Your task to perform on an android device: Turn off the flashlight Image 0: 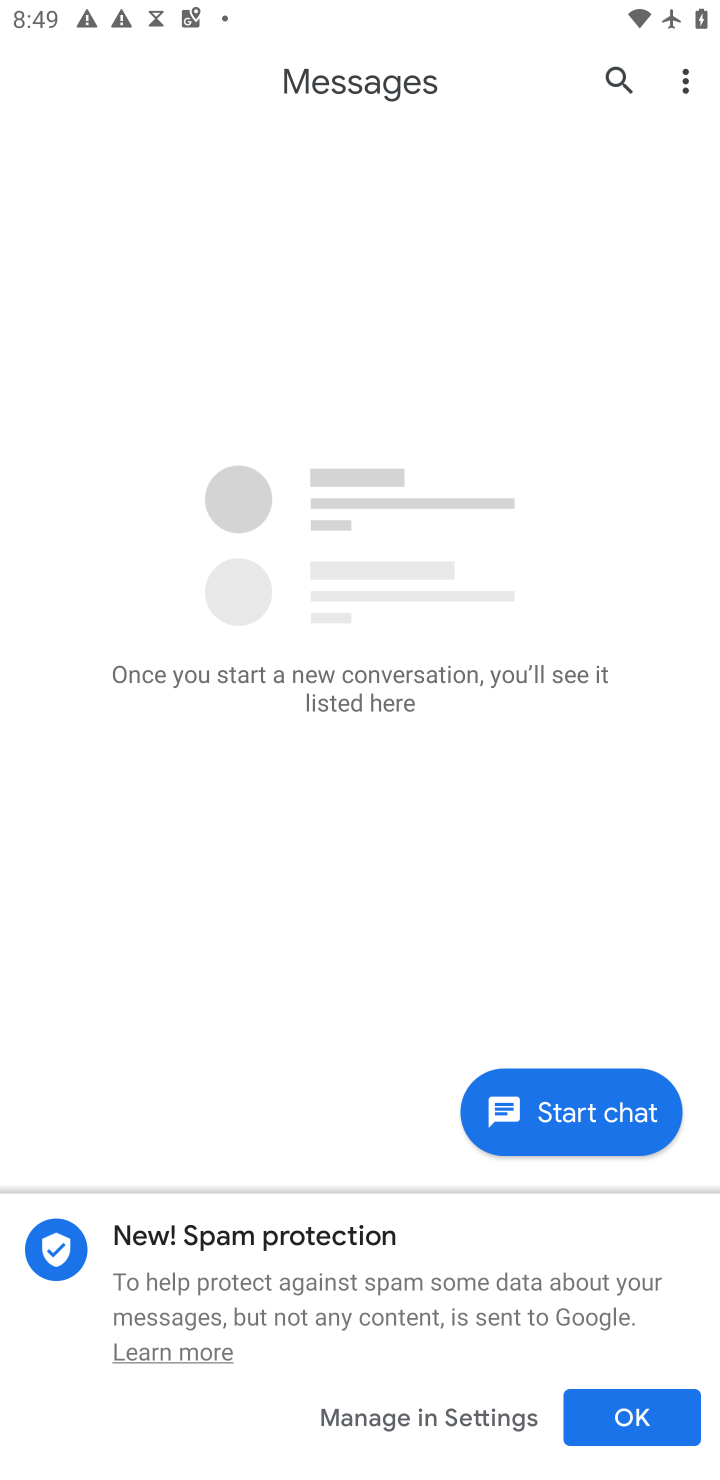
Step 0: press home button
Your task to perform on an android device: Turn off the flashlight Image 1: 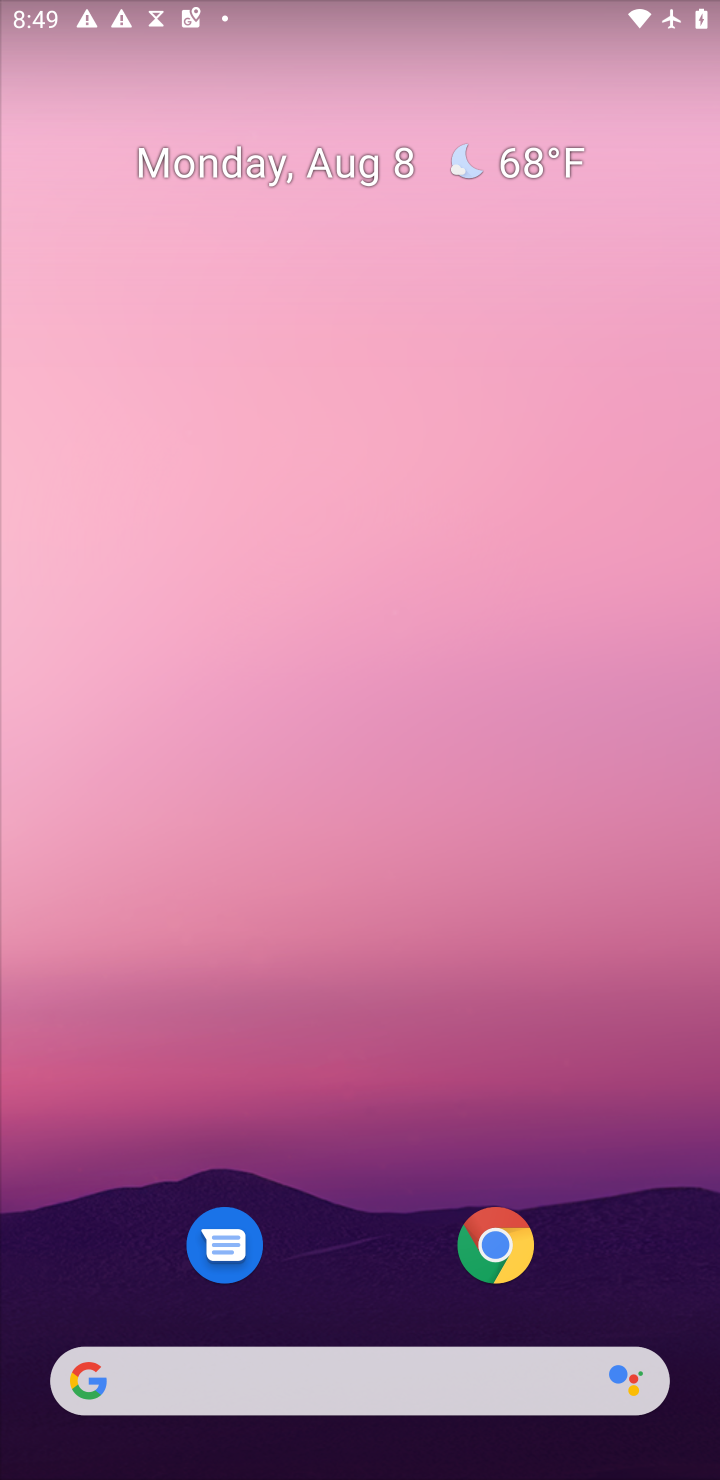
Step 1: drag from (373, 1274) to (631, 0)
Your task to perform on an android device: Turn off the flashlight Image 2: 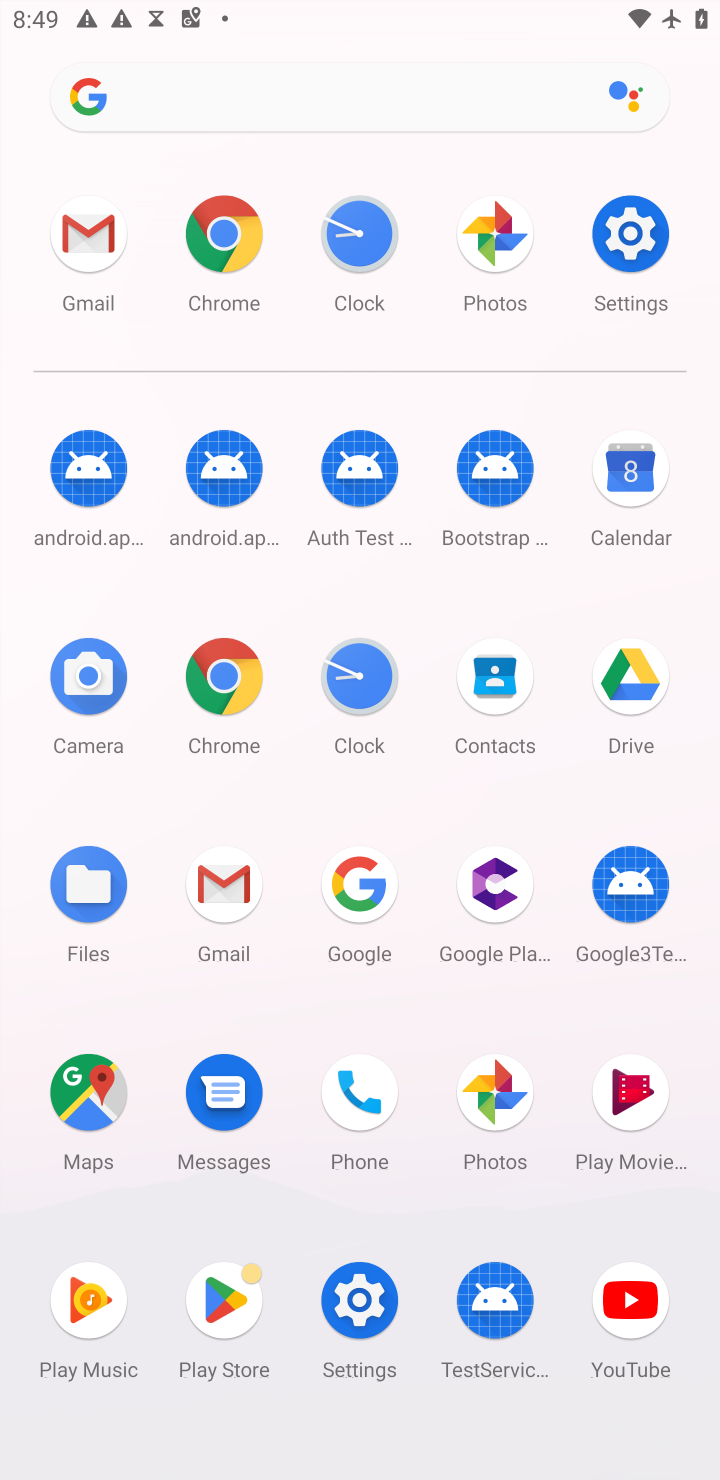
Step 2: click (639, 284)
Your task to perform on an android device: Turn off the flashlight Image 3: 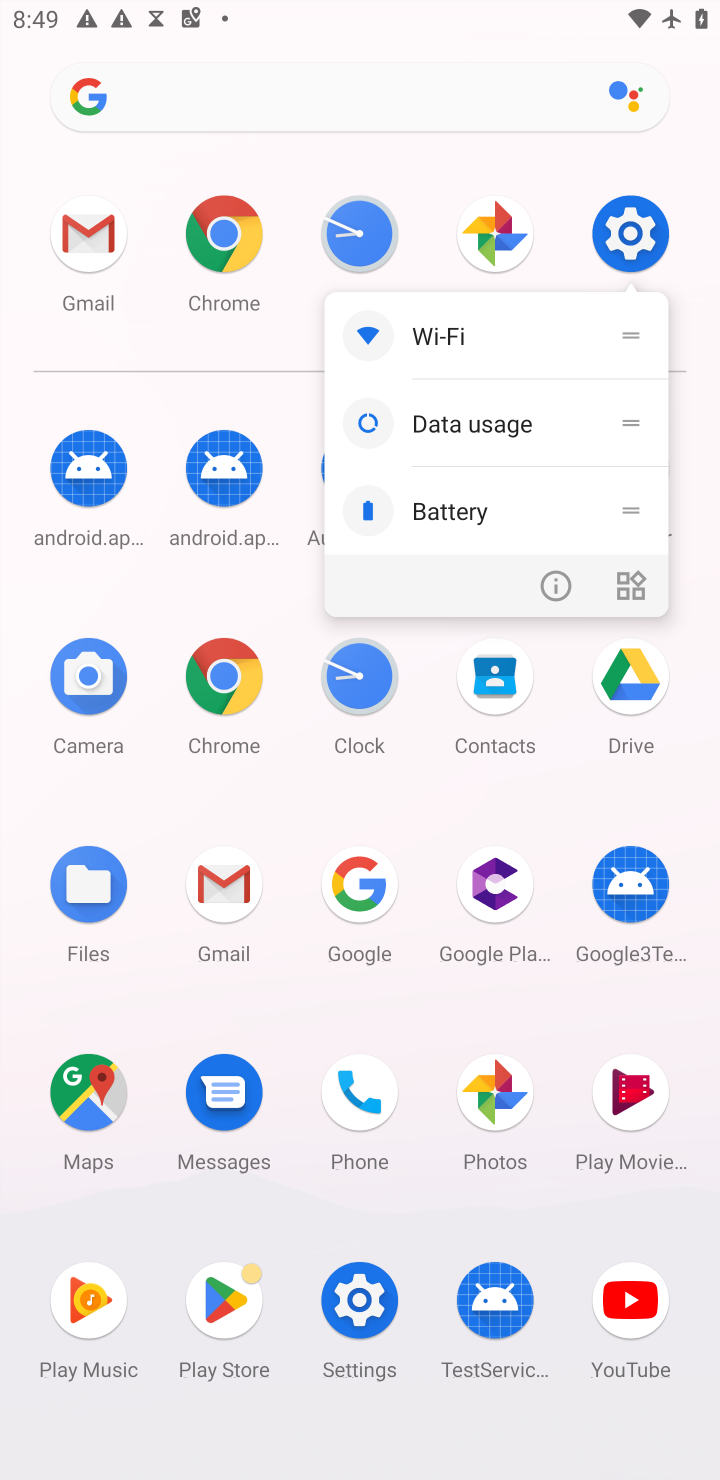
Step 3: click (643, 241)
Your task to perform on an android device: Turn off the flashlight Image 4: 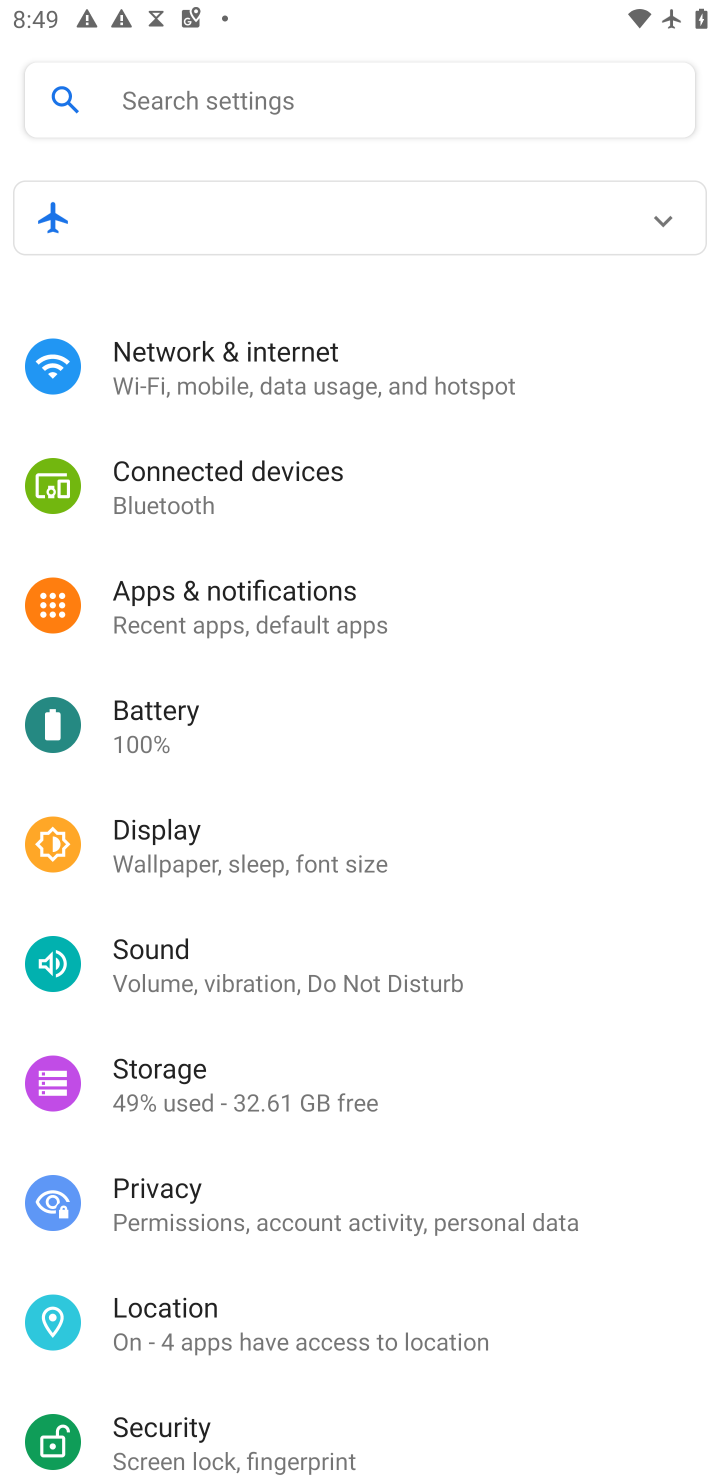
Step 4: click (362, 93)
Your task to perform on an android device: Turn off the flashlight Image 5: 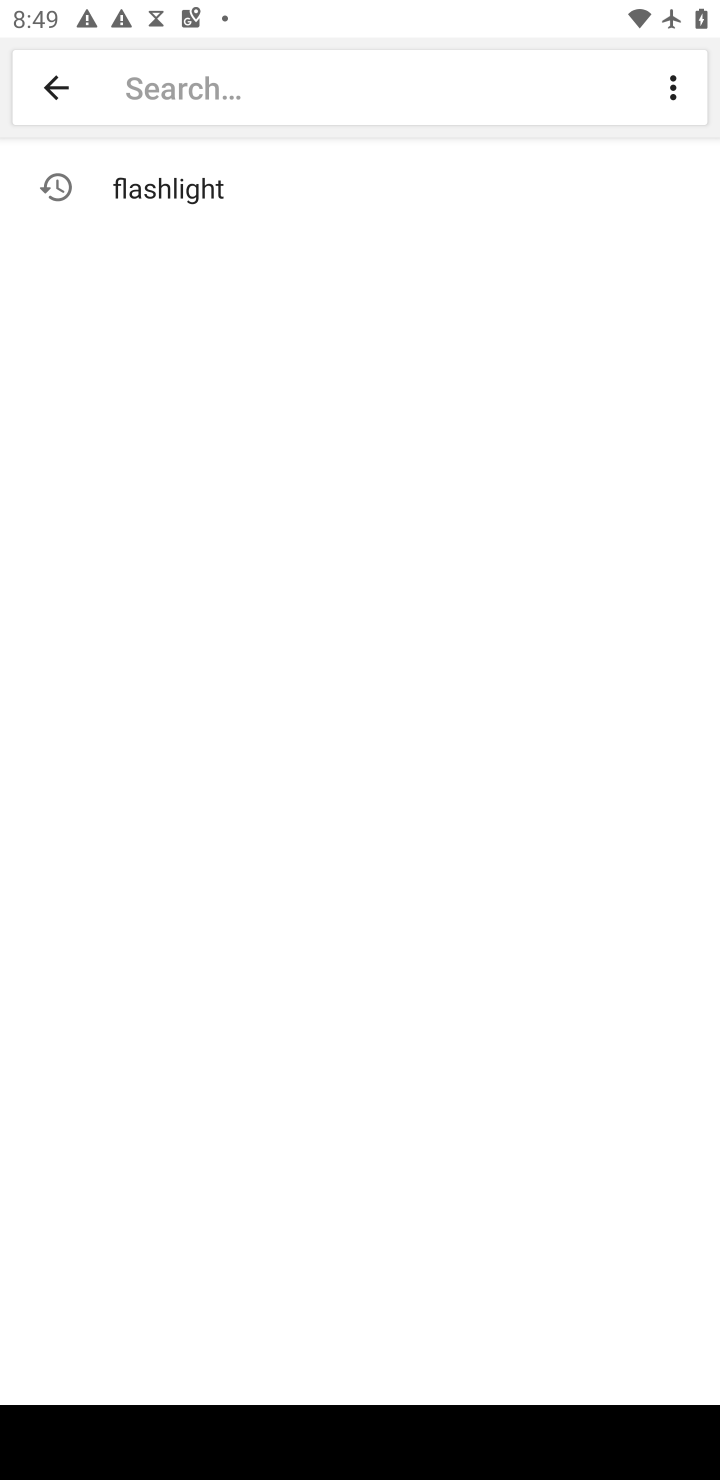
Step 5: type "flashlight"
Your task to perform on an android device: Turn off the flashlight Image 6: 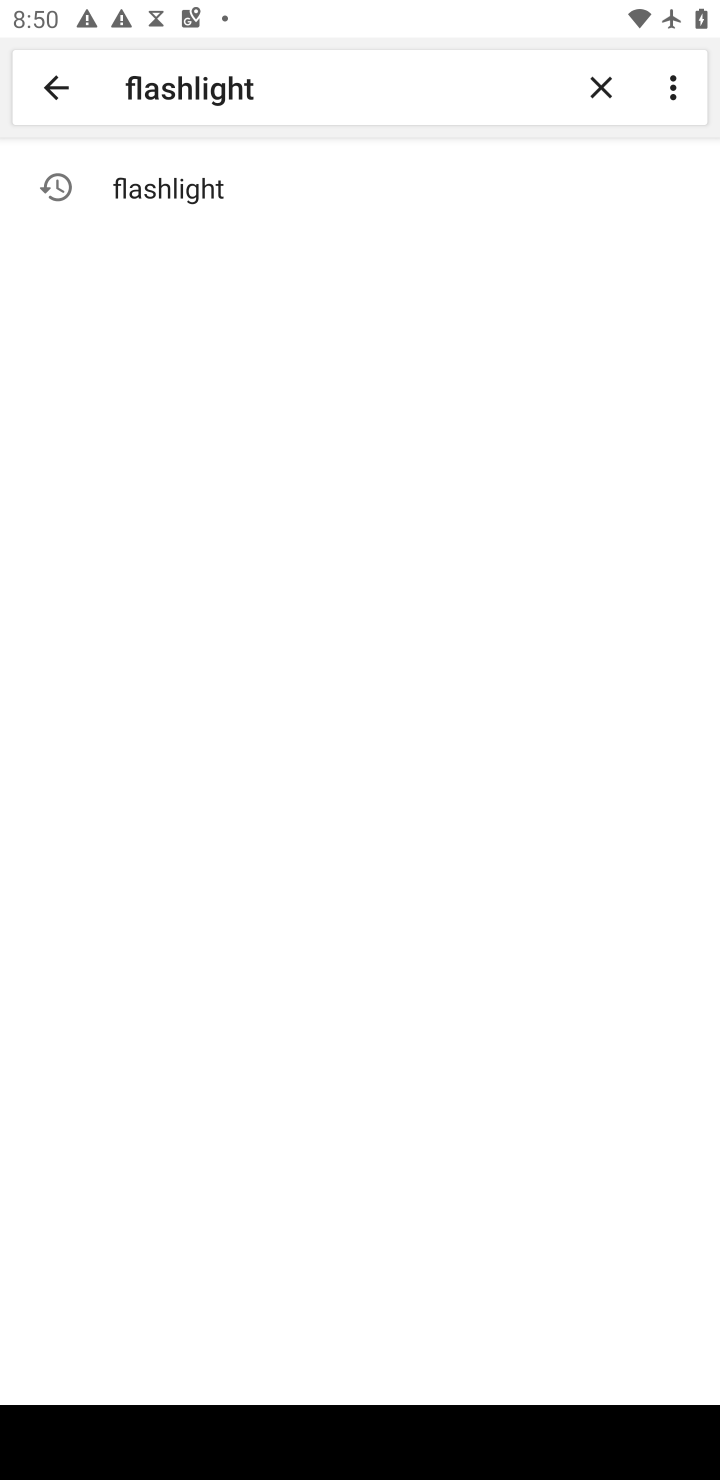
Step 6: click (330, 207)
Your task to perform on an android device: Turn off the flashlight Image 7: 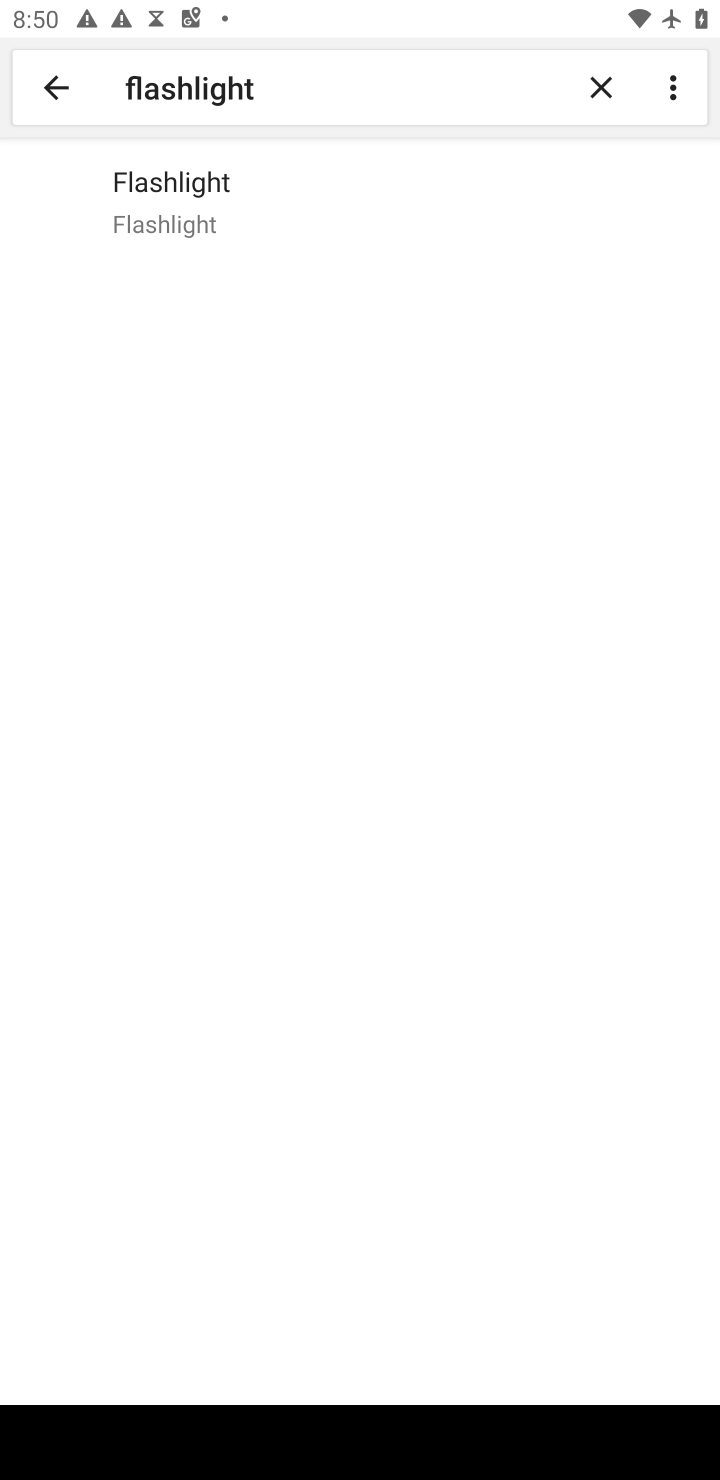
Step 7: click (212, 228)
Your task to perform on an android device: Turn off the flashlight Image 8: 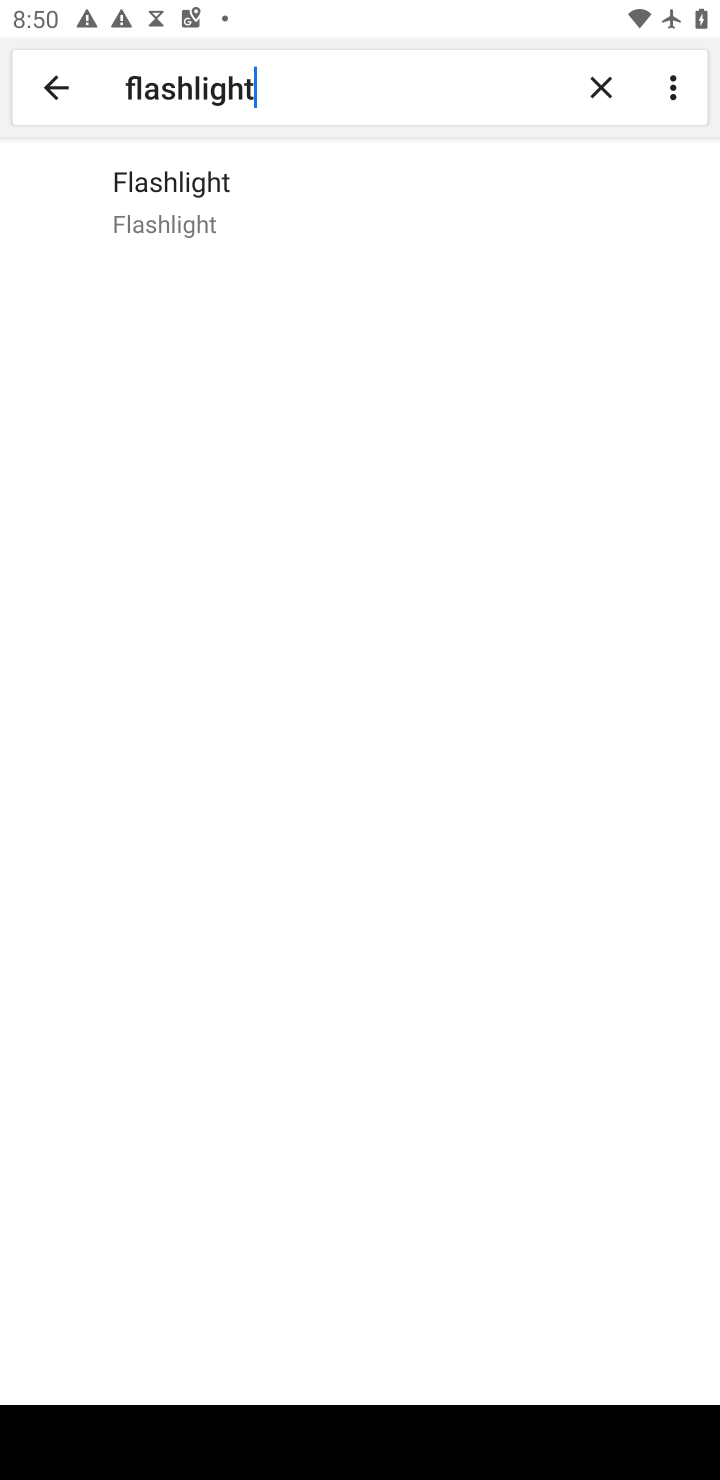
Step 8: click (212, 221)
Your task to perform on an android device: Turn off the flashlight Image 9: 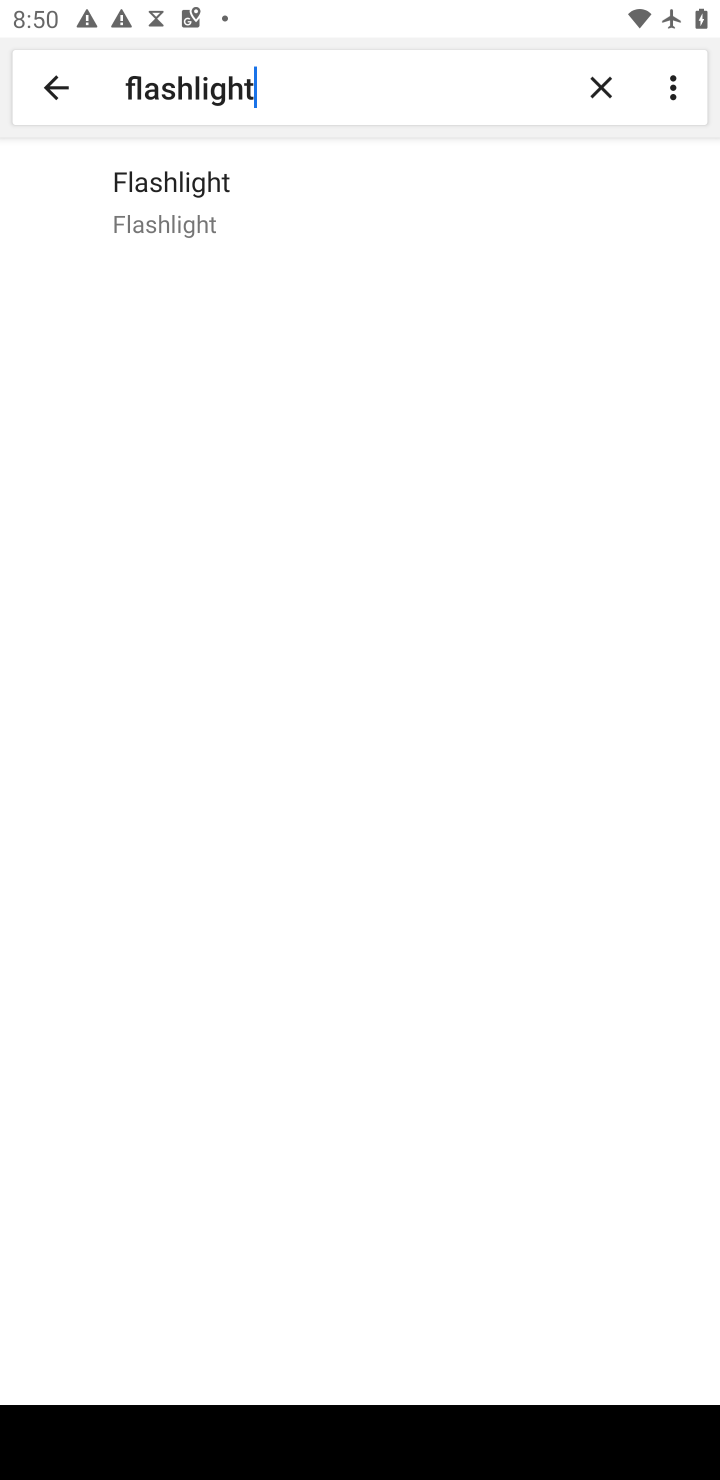
Step 9: task complete